Your task to perform on an android device: Open eBay Image 0: 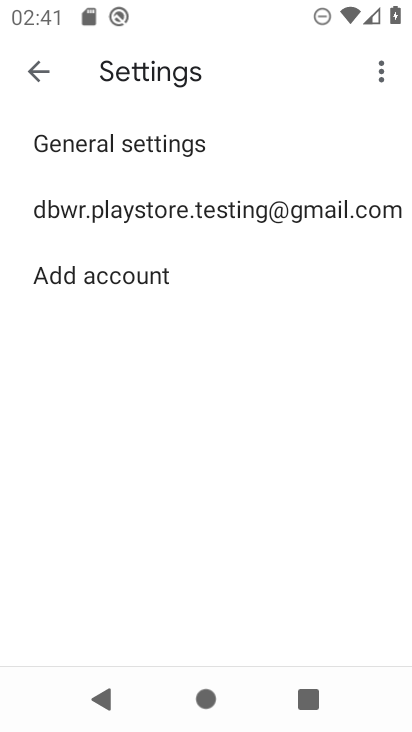
Step 0: press home button
Your task to perform on an android device: Open eBay Image 1: 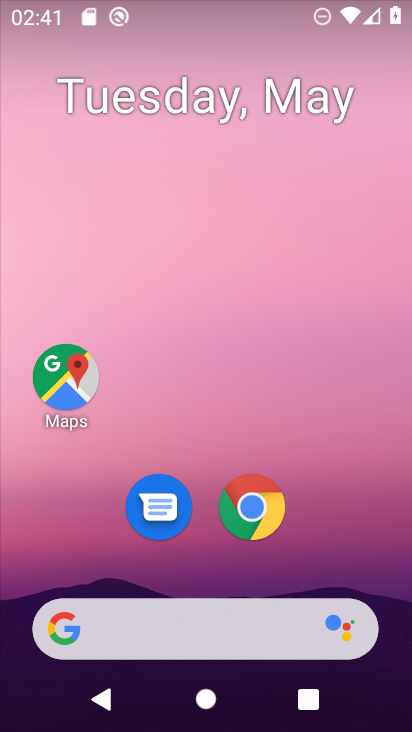
Step 1: click (251, 526)
Your task to perform on an android device: Open eBay Image 2: 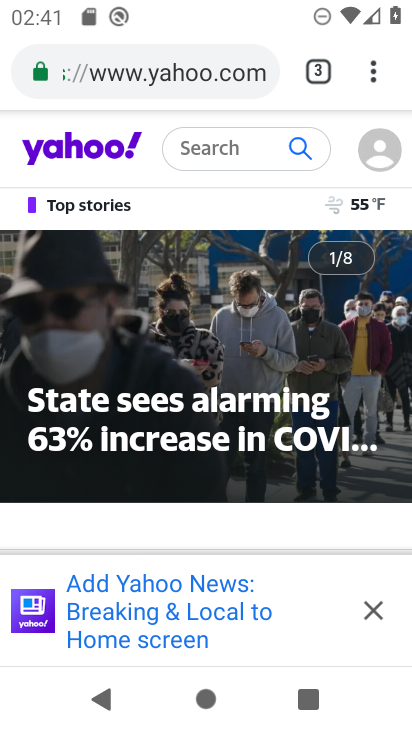
Step 2: click (305, 71)
Your task to perform on an android device: Open eBay Image 3: 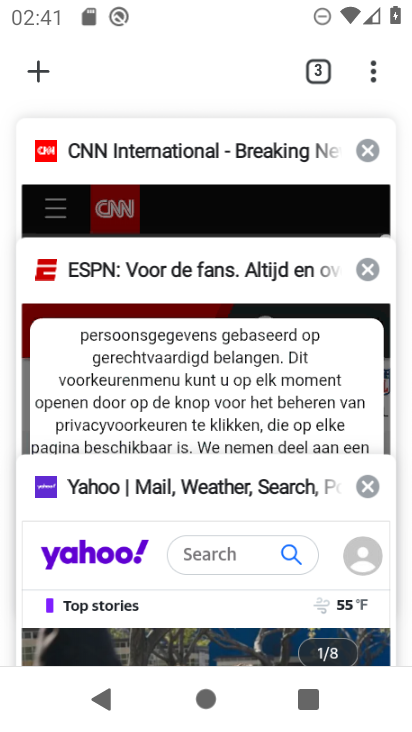
Step 3: click (49, 74)
Your task to perform on an android device: Open eBay Image 4: 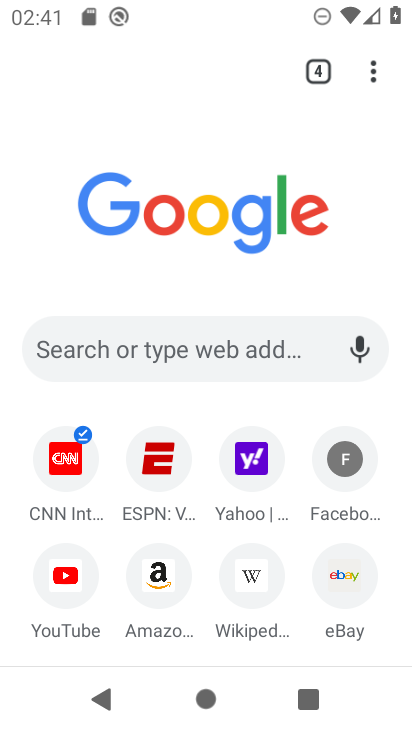
Step 4: click (171, 363)
Your task to perform on an android device: Open eBay Image 5: 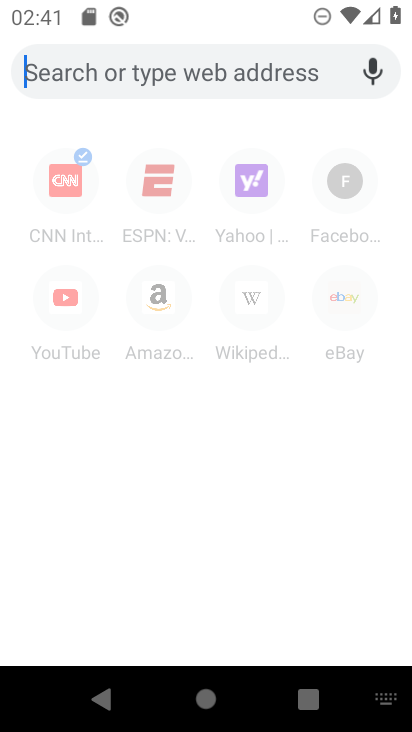
Step 5: type "eBay"
Your task to perform on an android device: Open eBay Image 6: 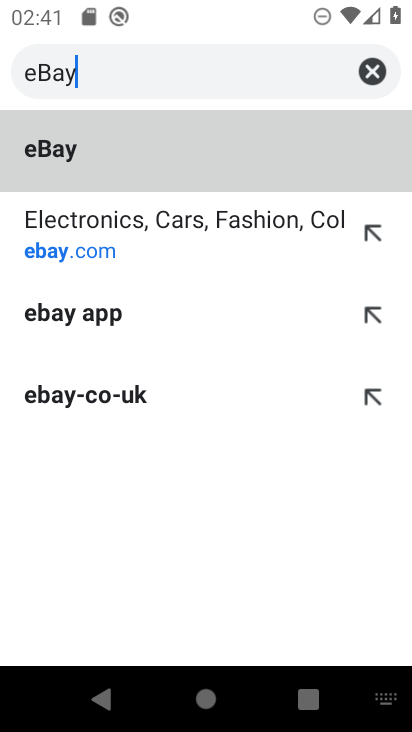
Step 6: click (73, 148)
Your task to perform on an android device: Open eBay Image 7: 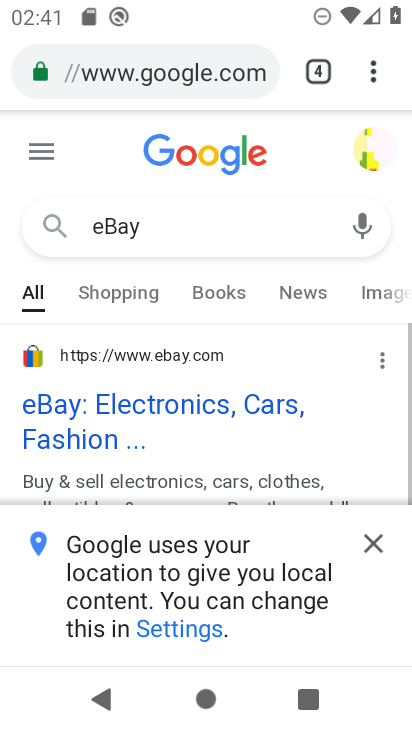
Step 7: click (103, 403)
Your task to perform on an android device: Open eBay Image 8: 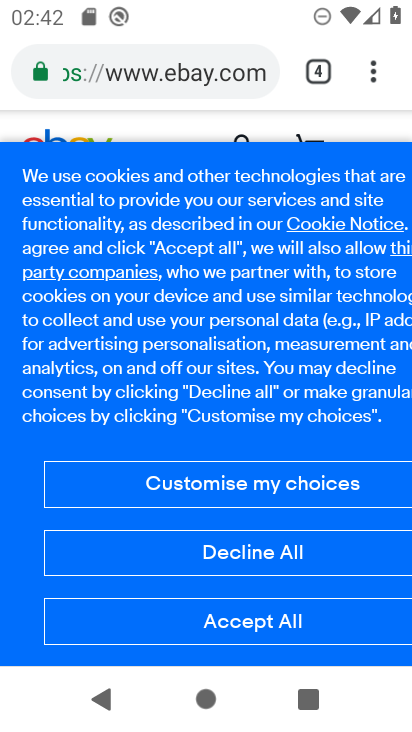
Step 8: task complete